Your task to perform on an android device: find snoozed emails in the gmail app Image 0: 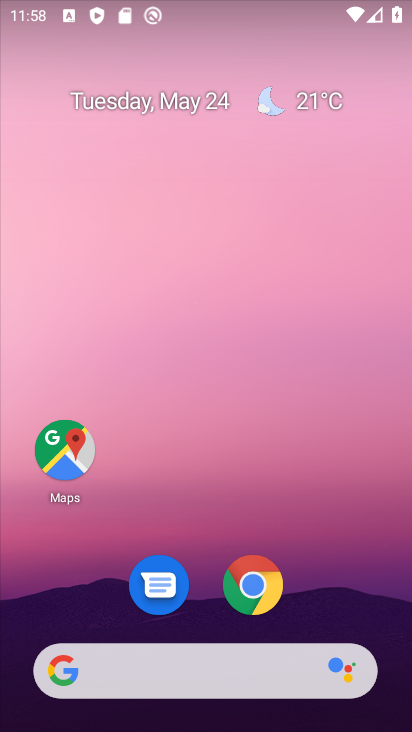
Step 0: drag from (235, 499) to (280, 21)
Your task to perform on an android device: find snoozed emails in the gmail app Image 1: 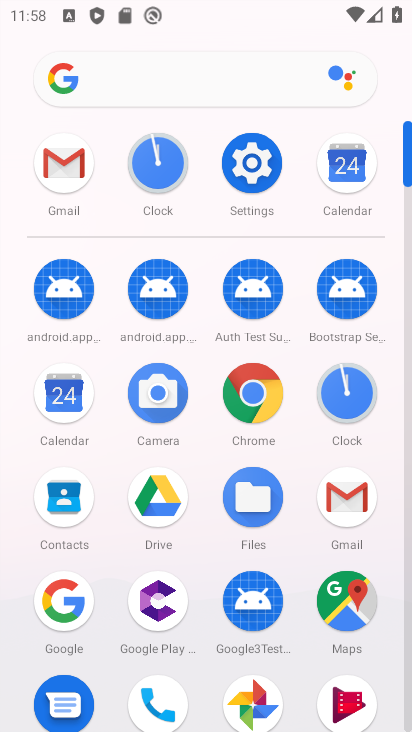
Step 1: click (79, 173)
Your task to perform on an android device: find snoozed emails in the gmail app Image 2: 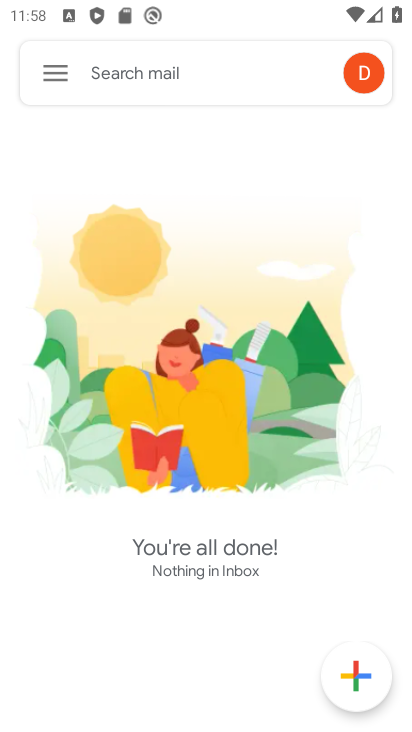
Step 2: click (56, 71)
Your task to perform on an android device: find snoozed emails in the gmail app Image 3: 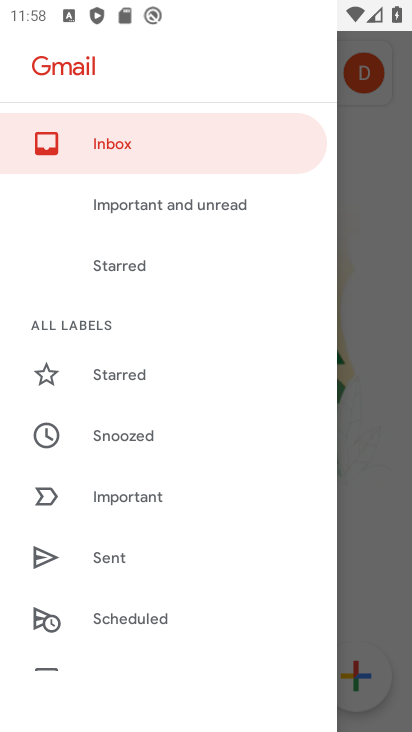
Step 3: click (129, 433)
Your task to perform on an android device: find snoozed emails in the gmail app Image 4: 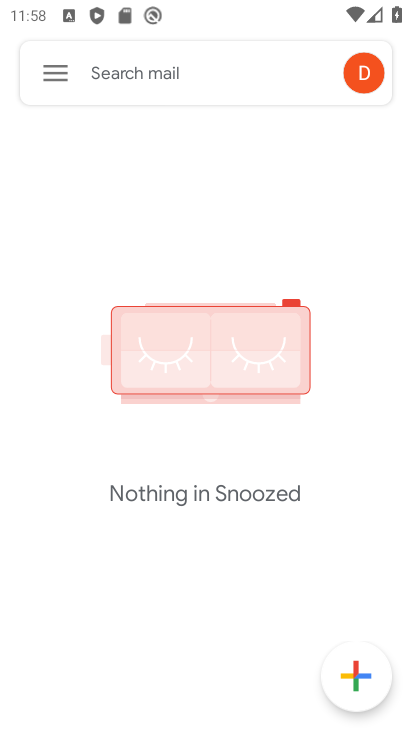
Step 4: task complete